Your task to perform on an android device: change keyboard looks Image 0: 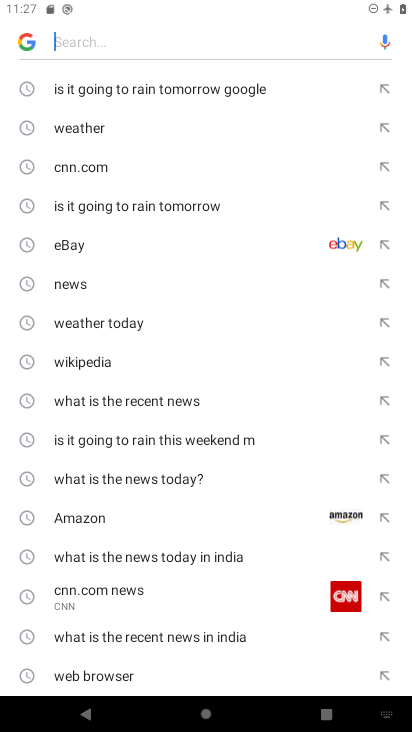
Step 0: press home button
Your task to perform on an android device: change keyboard looks Image 1: 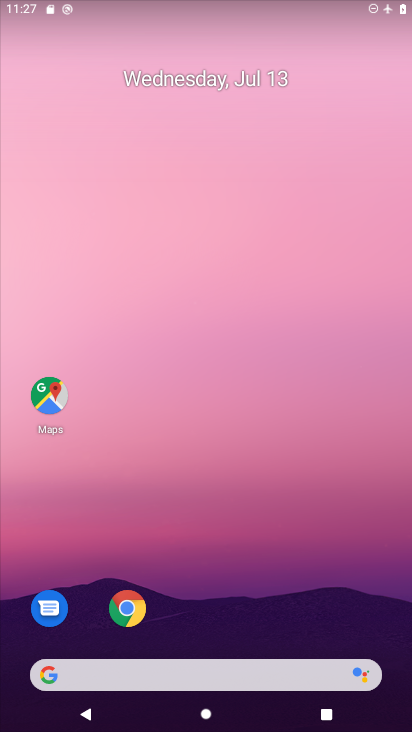
Step 1: drag from (298, 574) to (340, 0)
Your task to perform on an android device: change keyboard looks Image 2: 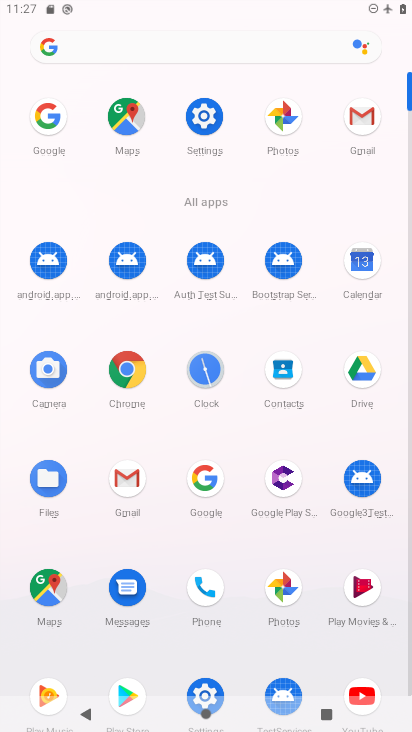
Step 2: click (202, 118)
Your task to perform on an android device: change keyboard looks Image 3: 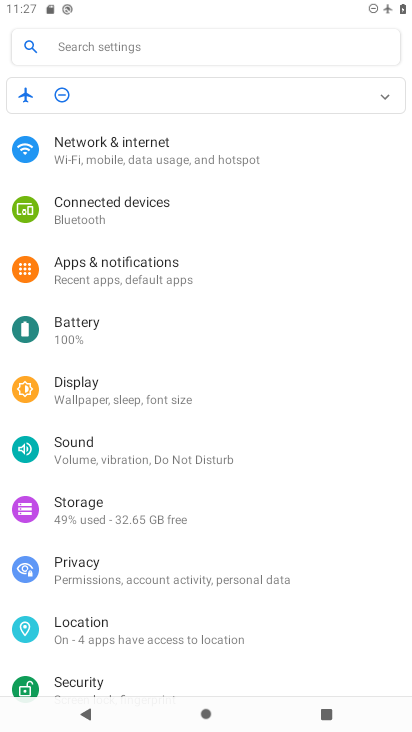
Step 3: drag from (167, 638) to (195, 314)
Your task to perform on an android device: change keyboard looks Image 4: 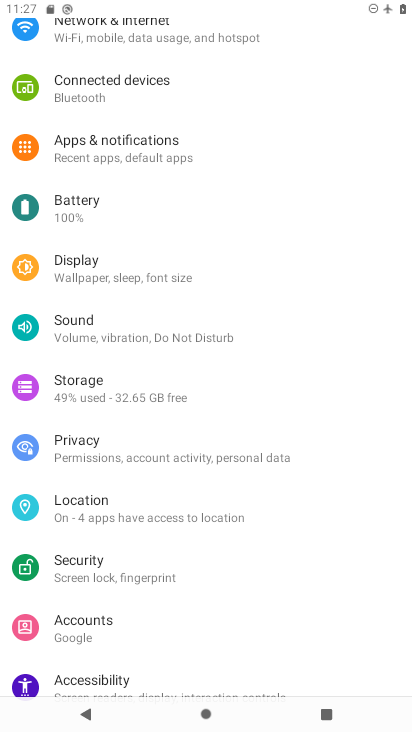
Step 4: drag from (147, 661) to (185, 125)
Your task to perform on an android device: change keyboard looks Image 5: 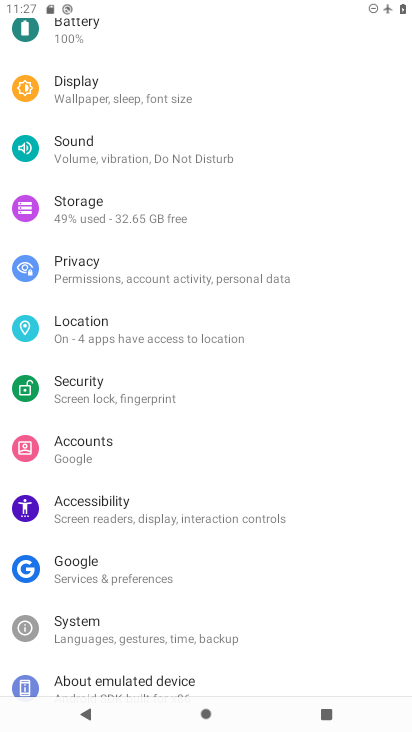
Step 5: click (123, 641)
Your task to perform on an android device: change keyboard looks Image 6: 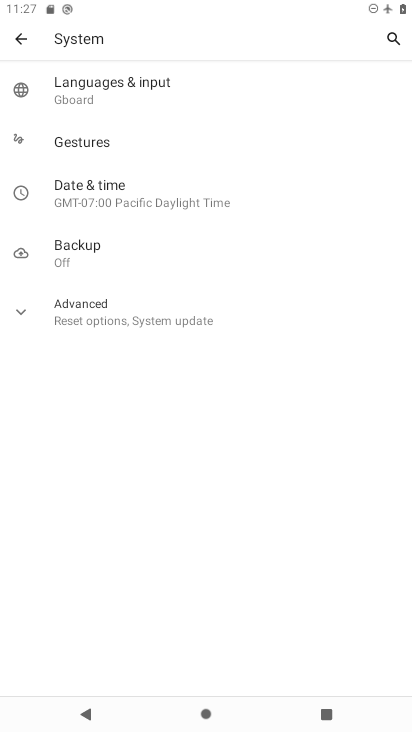
Step 6: click (116, 84)
Your task to perform on an android device: change keyboard looks Image 7: 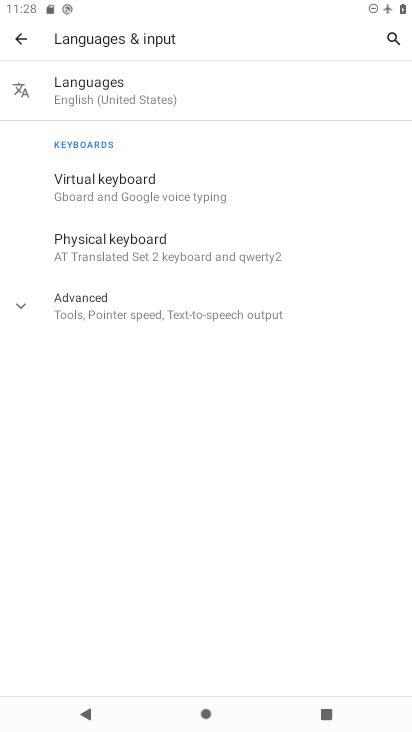
Step 7: click (88, 195)
Your task to perform on an android device: change keyboard looks Image 8: 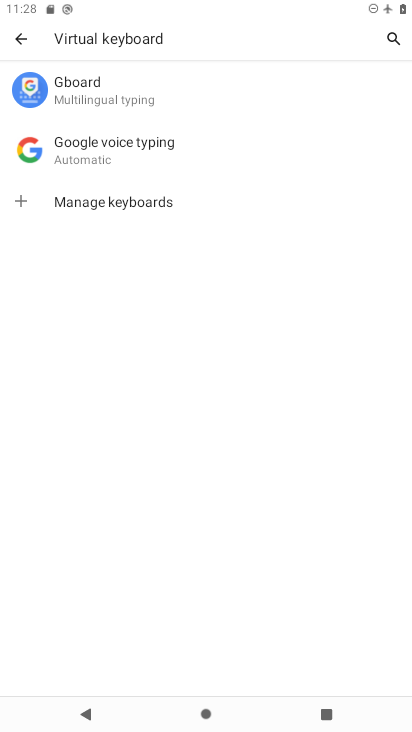
Step 8: click (98, 97)
Your task to perform on an android device: change keyboard looks Image 9: 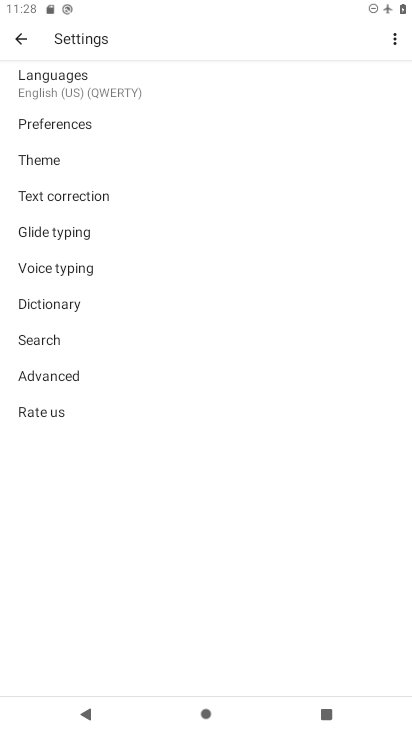
Step 9: click (64, 164)
Your task to perform on an android device: change keyboard looks Image 10: 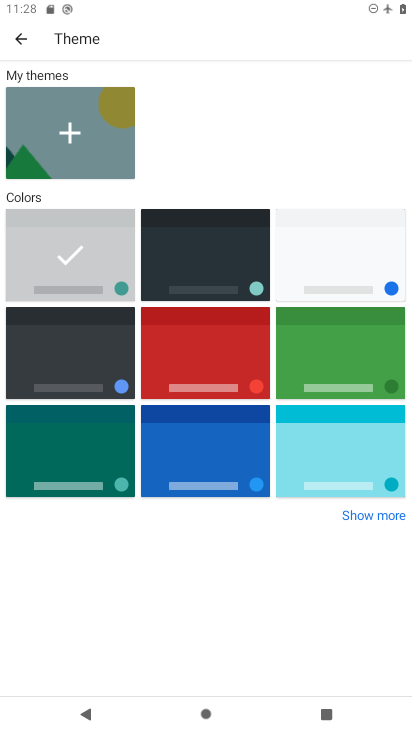
Step 10: click (164, 235)
Your task to perform on an android device: change keyboard looks Image 11: 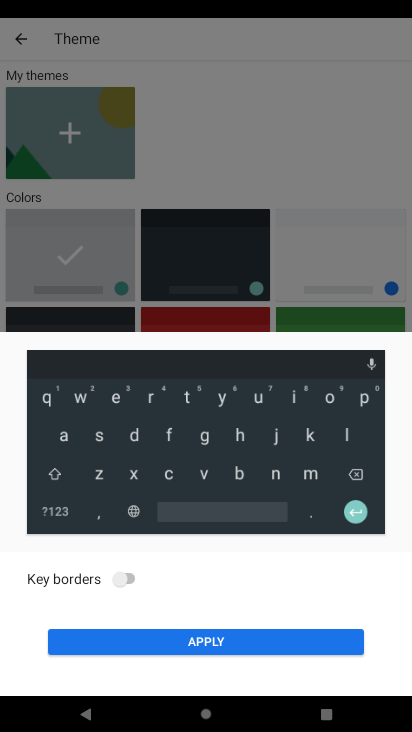
Step 11: click (215, 637)
Your task to perform on an android device: change keyboard looks Image 12: 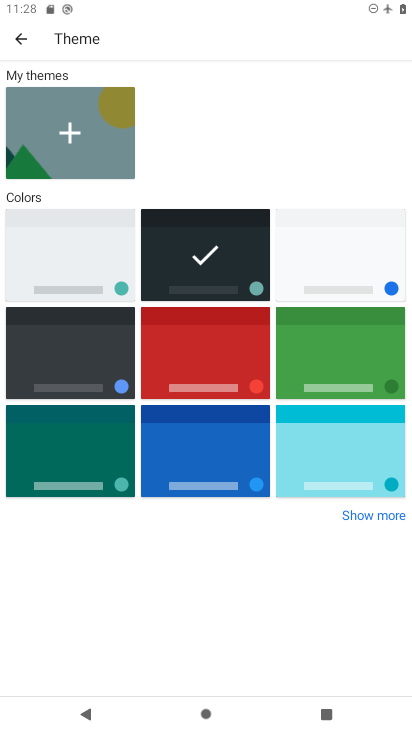
Step 12: task complete